Your task to perform on an android device: delete browsing data in the chrome app Image 0: 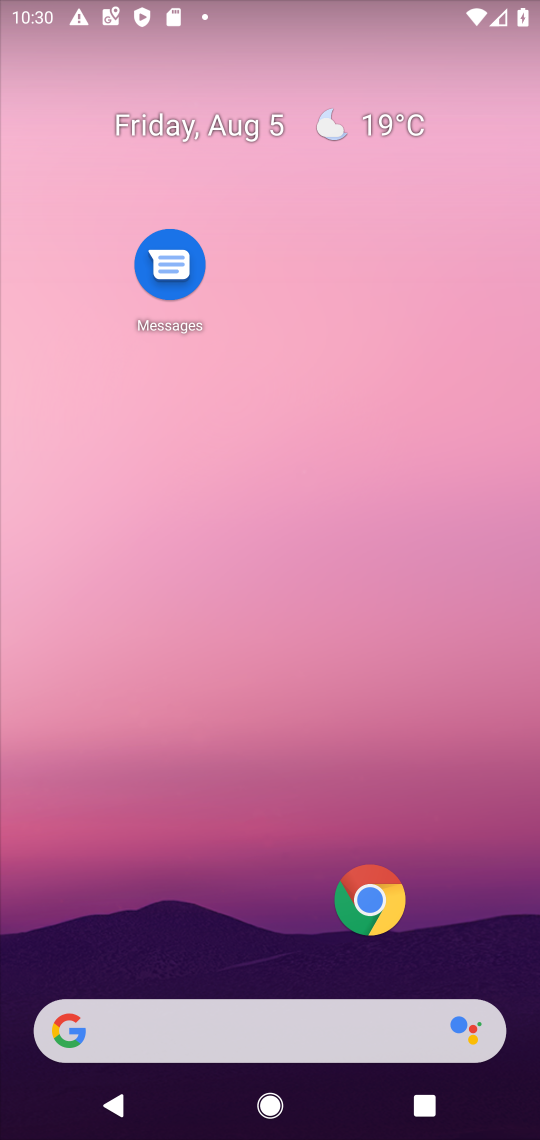
Step 0: press home button
Your task to perform on an android device: delete browsing data in the chrome app Image 1: 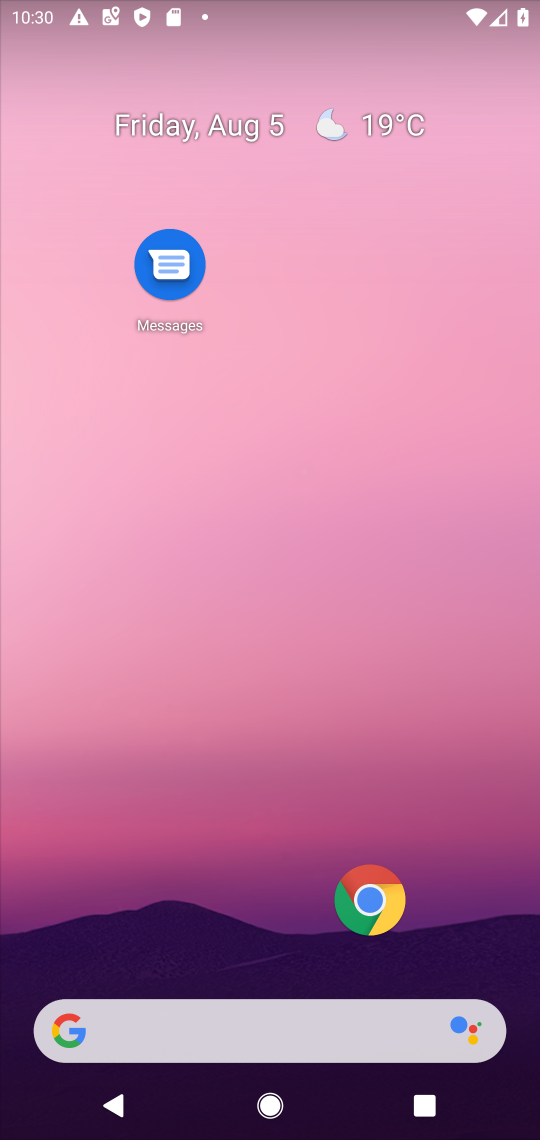
Step 1: drag from (174, 976) to (151, 204)
Your task to perform on an android device: delete browsing data in the chrome app Image 2: 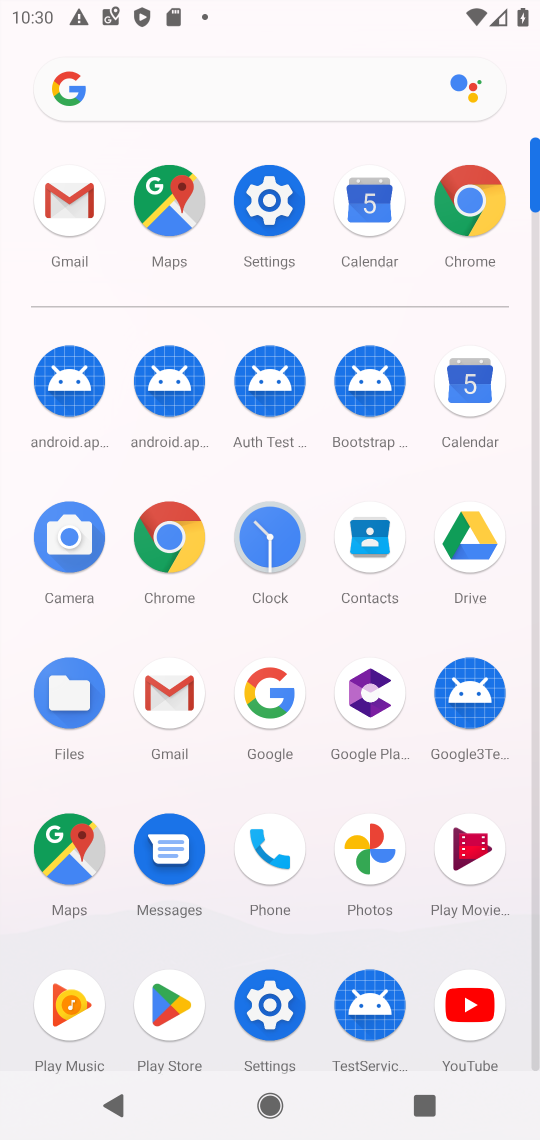
Step 2: click (449, 219)
Your task to perform on an android device: delete browsing data in the chrome app Image 3: 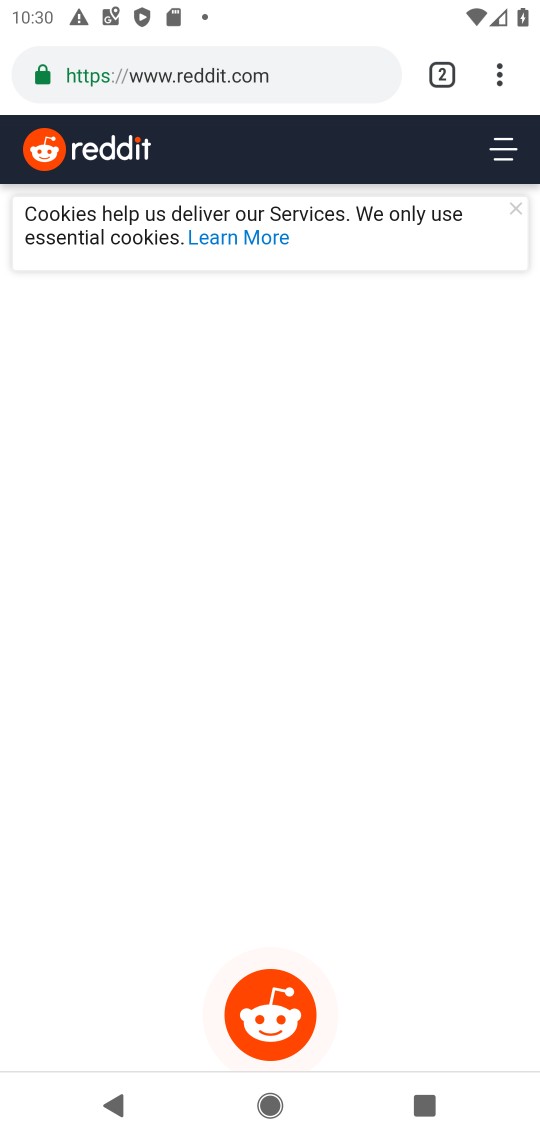
Step 3: click (501, 75)
Your task to perform on an android device: delete browsing data in the chrome app Image 4: 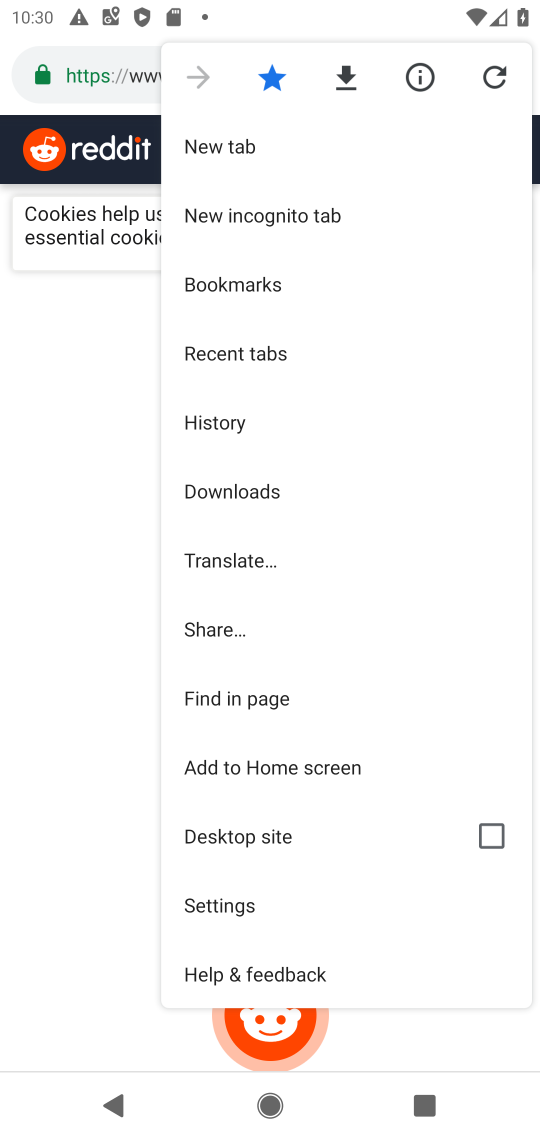
Step 4: click (269, 800)
Your task to perform on an android device: delete browsing data in the chrome app Image 5: 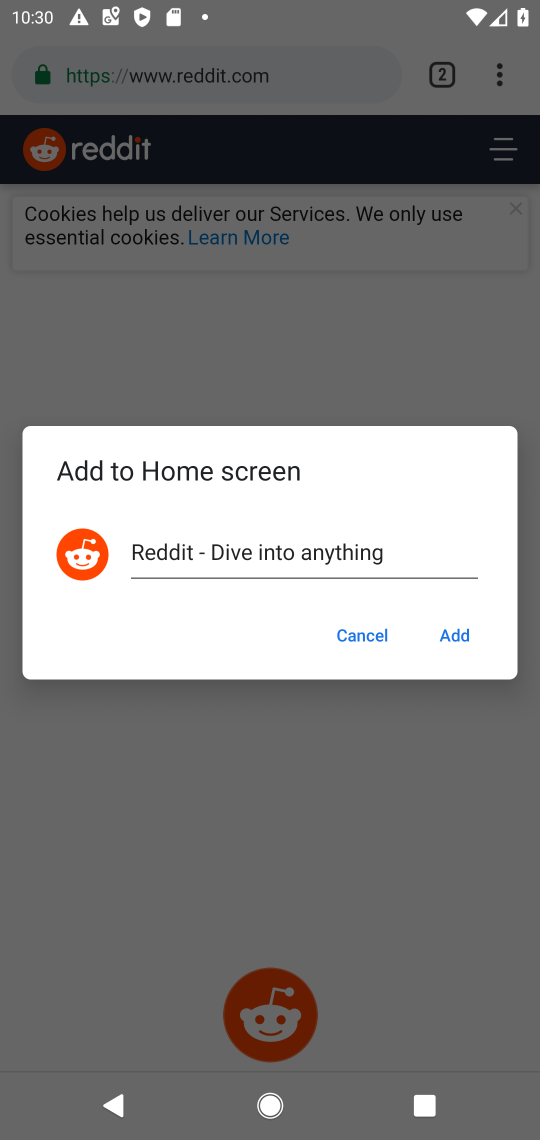
Step 5: click (378, 641)
Your task to perform on an android device: delete browsing data in the chrome app Image 6: 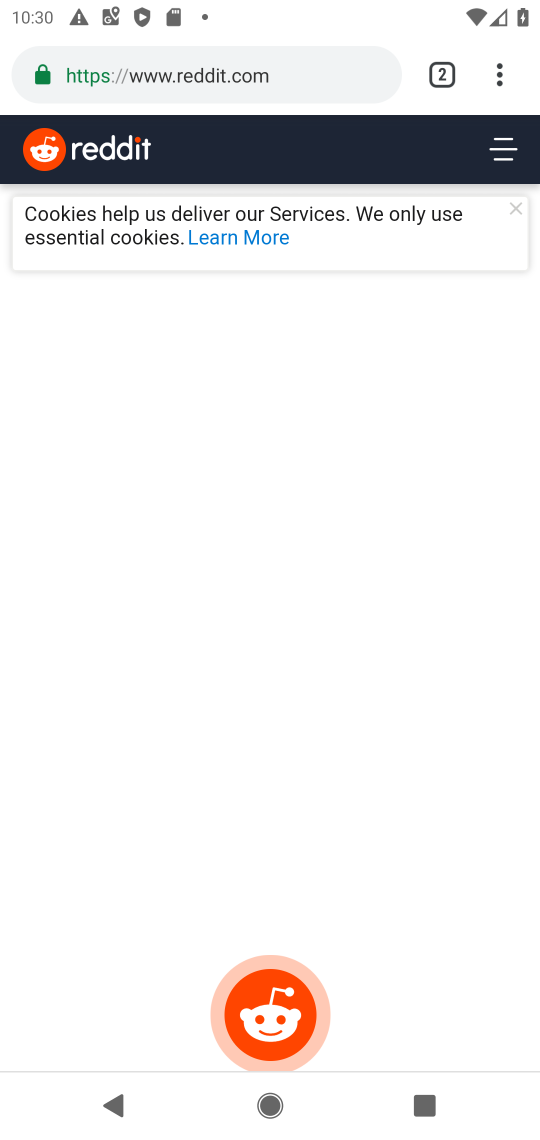
Step 6: click (512, 66)
Your task to perform on an android device: delete browsing data in the chrome app Image 7: 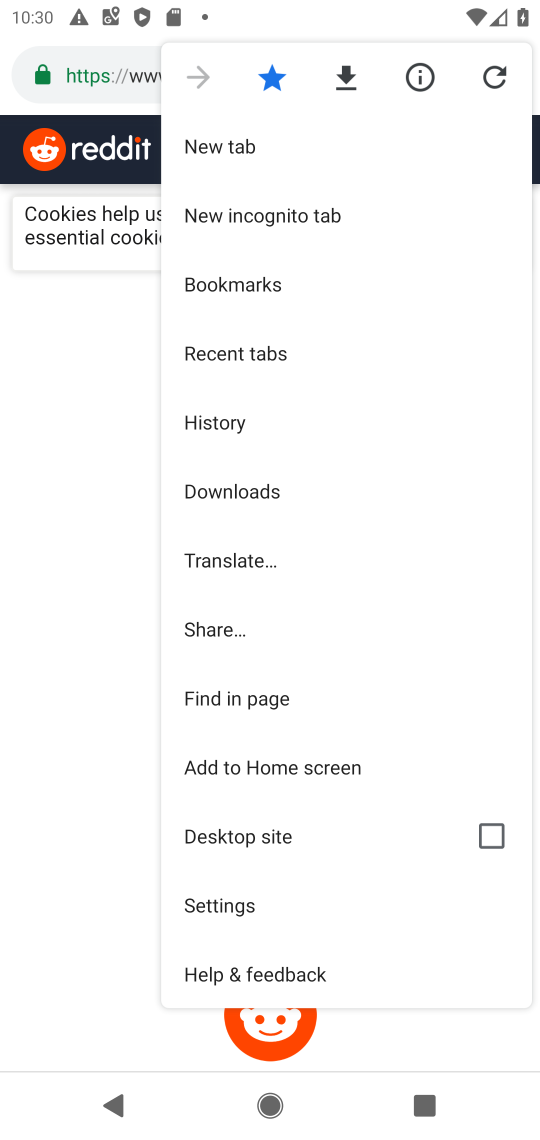
Step 7: click (254, 903)
Your task to perform on an android device: delete browsing data in the chrome app Image 8: 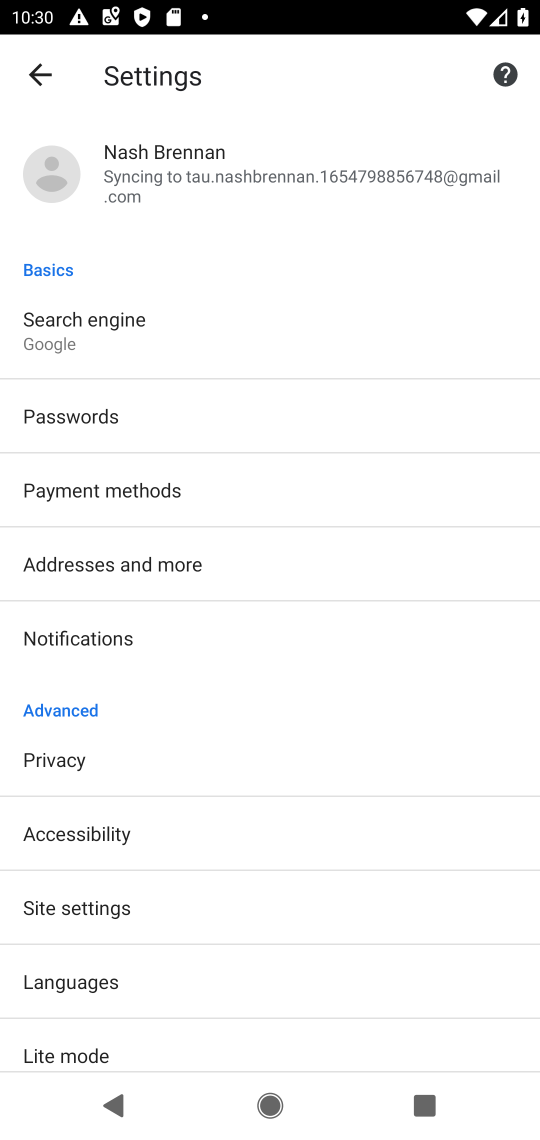
Step 8: click (82, 762)
Your task to perform on an android device: delete browsing data in the chrome app Image 9: 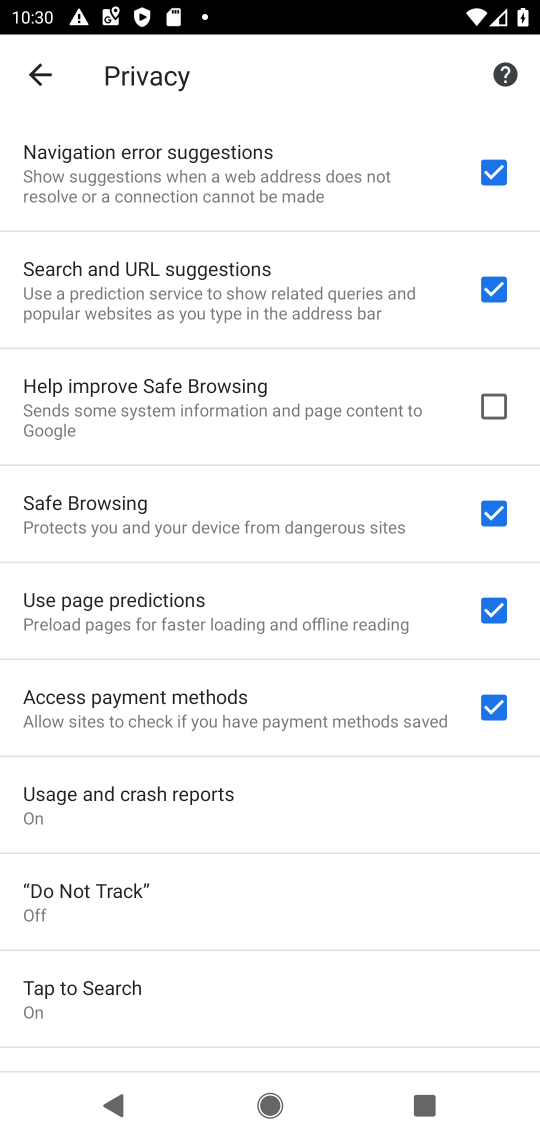
Step 9: drag from (103, 962) to (205, 264)
Your task to perform on an android device: delete browsing data in the chrome app Image 10: 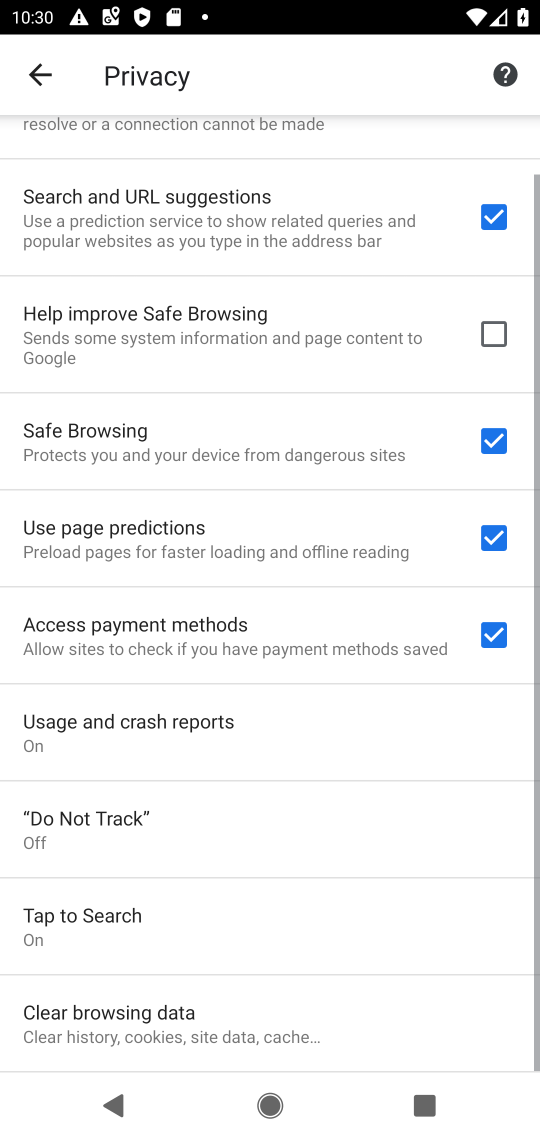
Step 10: click (135, 1024)
Your task to perform on an android device: delete browsing data in the chrome app Image 11: 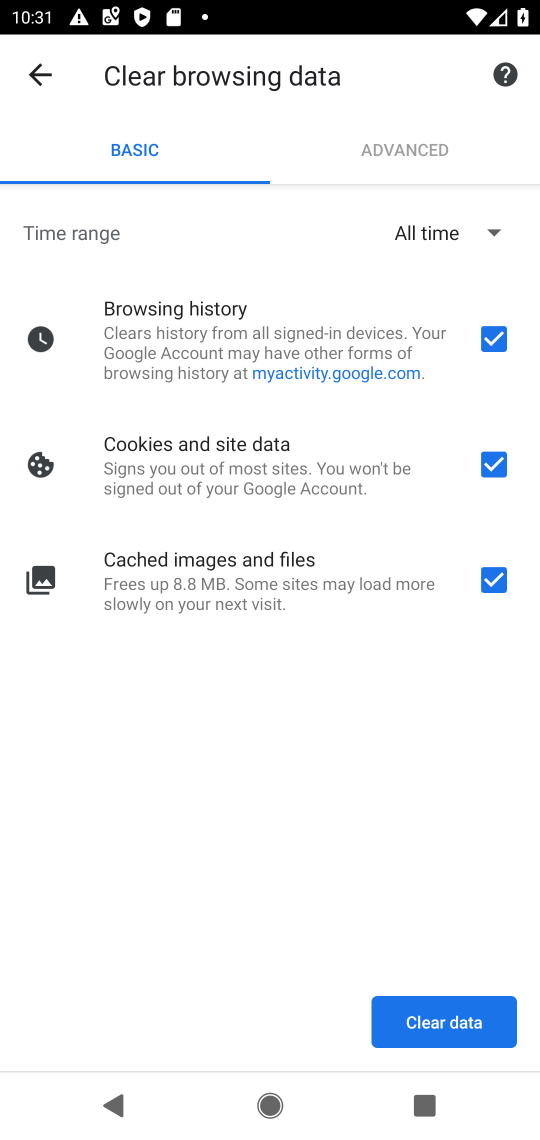
Step 11: click (433, 1029)
Your task to perform on an android device: delete browsing data in the chrome app Image 12: 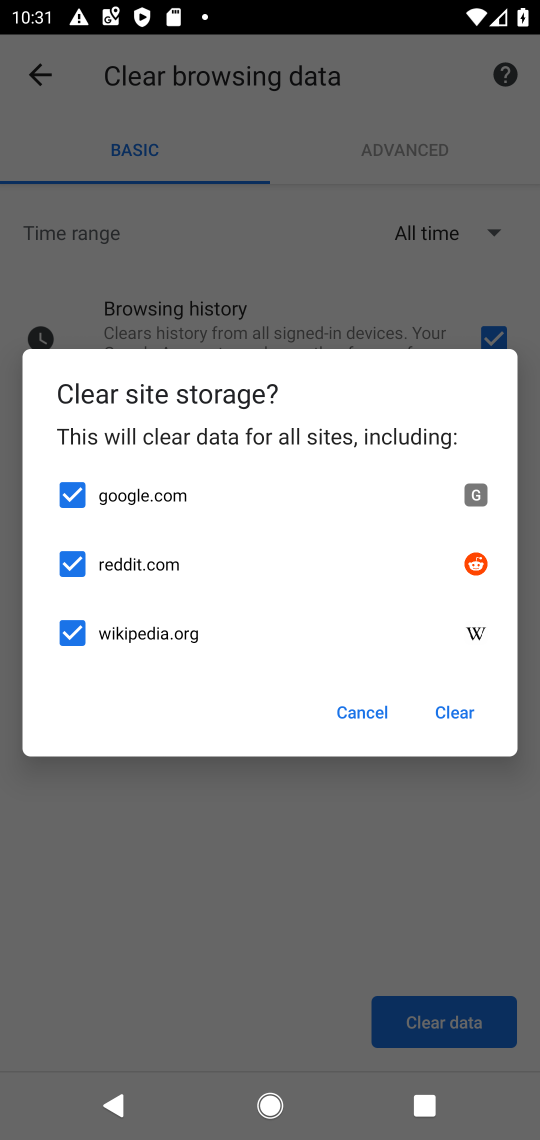
Step 12: click (454, 715)
Your task to perform on an android device: delete browsing data in the chrome app Image 13: 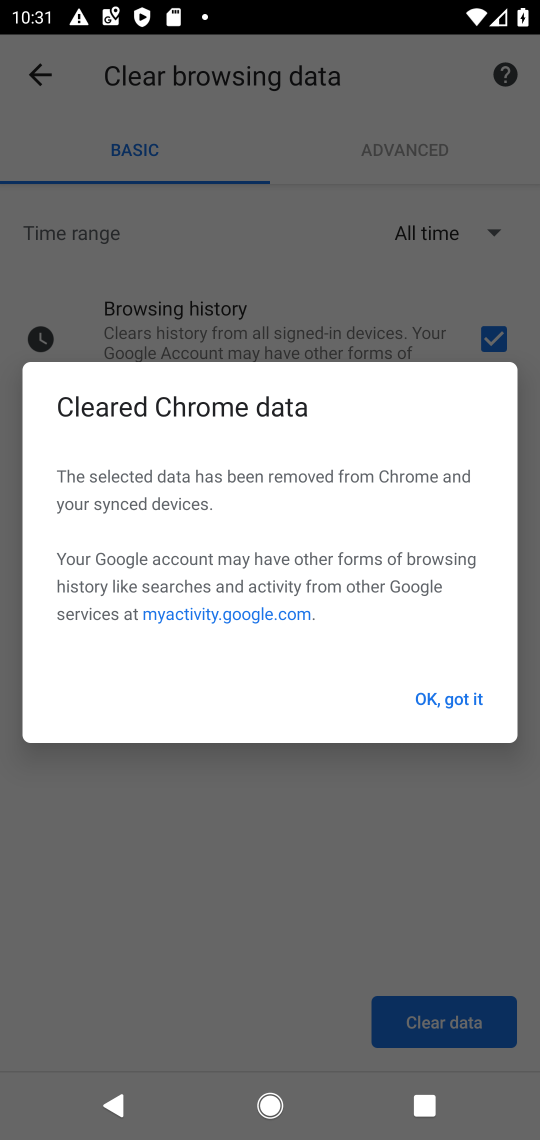
Step 13: click (445, 700)
Your task to perform on an android device: delete browsing data in the chrome app Image 14: 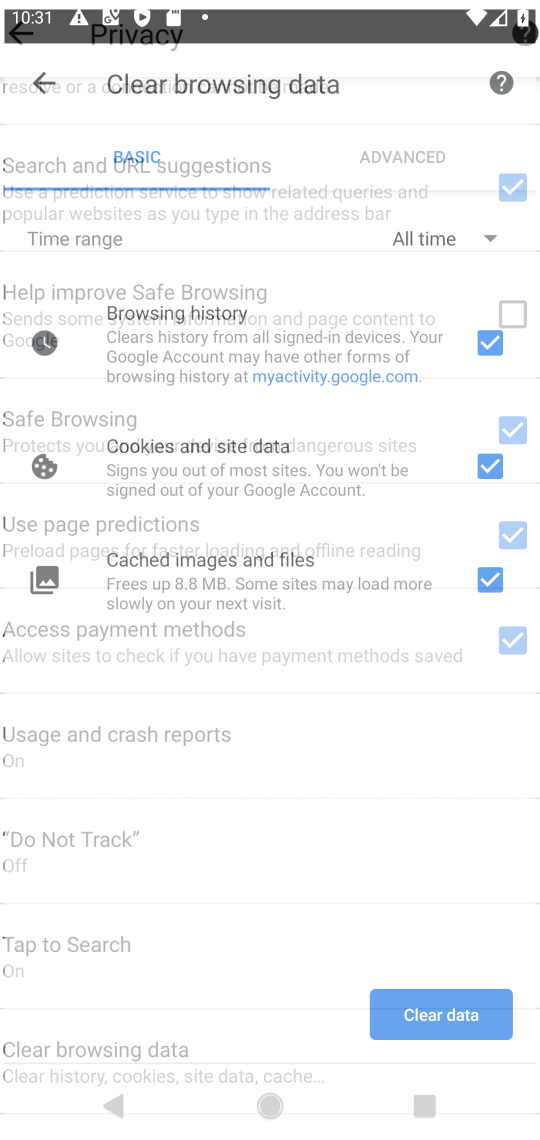
Step 14: task complete